Your task to perform on an android device: create a new album in the google photos Image 0: 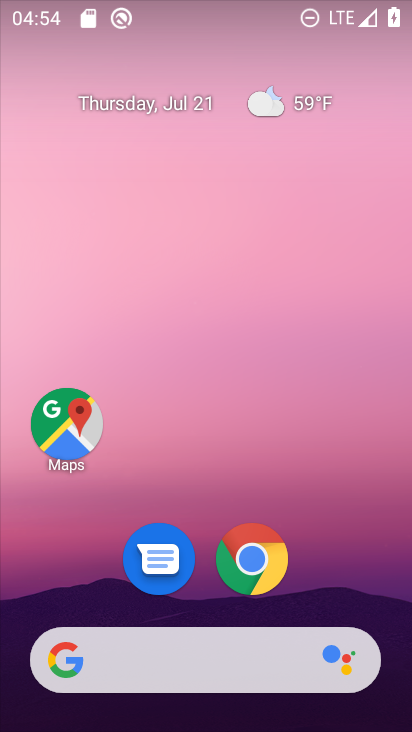
Step 0: drag from (55, 559) to (214, 4)
Your task to perform on an android device: create a new album in the google photos Image 1: 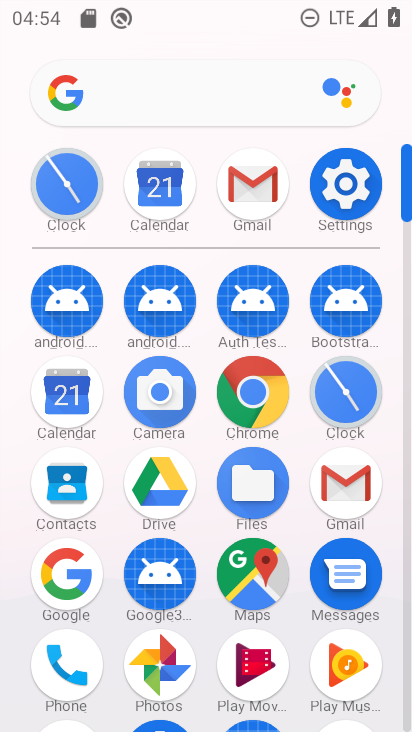
Step 1: click (160, 663)
Your task to perform on an android device: create a new album in the google photos Image 2: 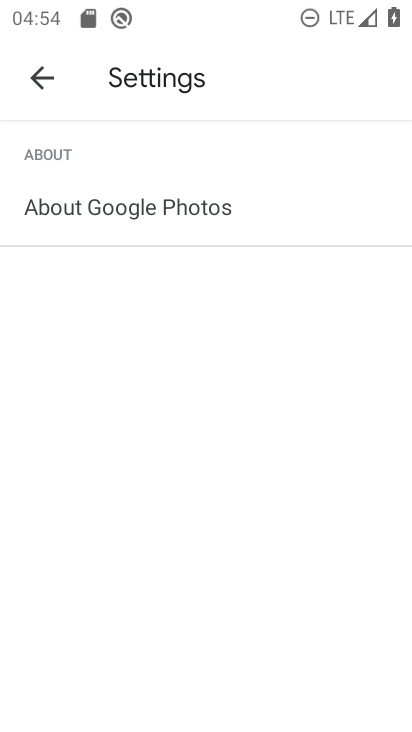
Step 2: click (33, 71)
Your task to perform on an android device: create a new album in the google photos Image 3: 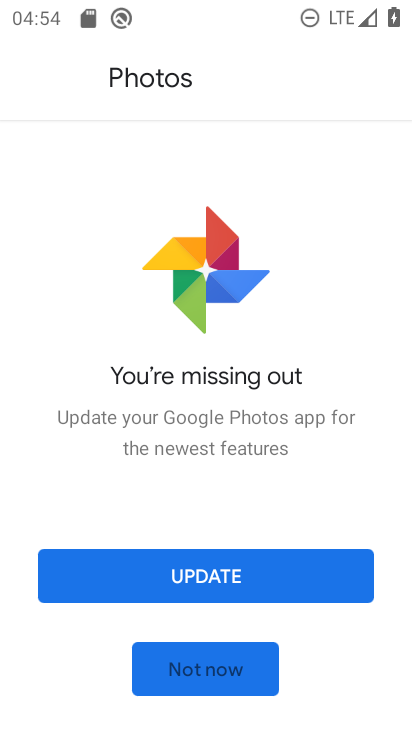
Step 3: click (208, 673)
Your task to perform on an android device: create a new album in the google photos Image 4: 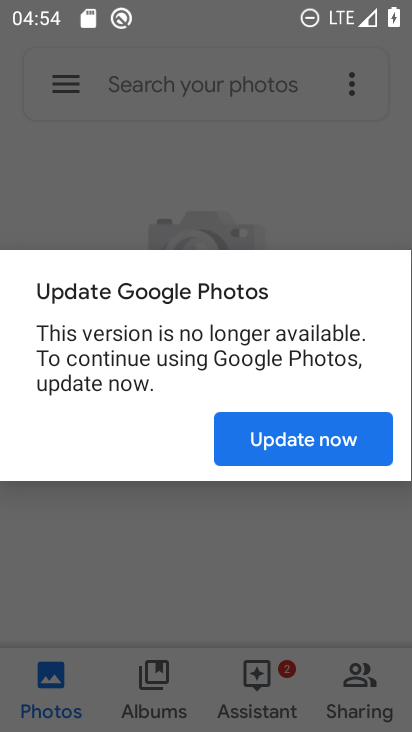
Step 4: click (260, 424)
Your task to perform on an android device: create a new album in the google photos Image 5: 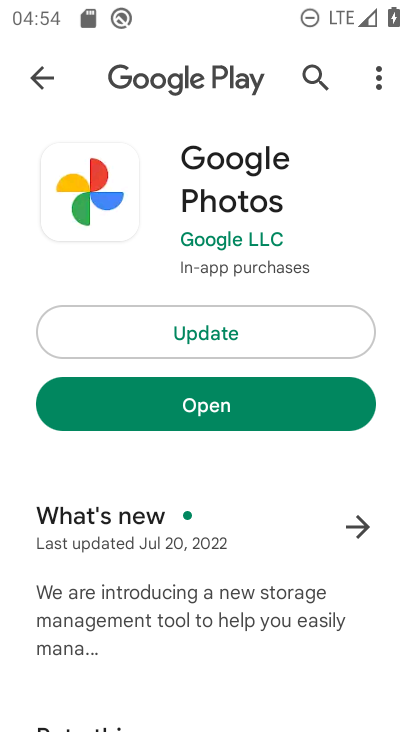
Step 5: click (211, 393)
Your task to perform on an android device: create a new album in the google photos Image 6: 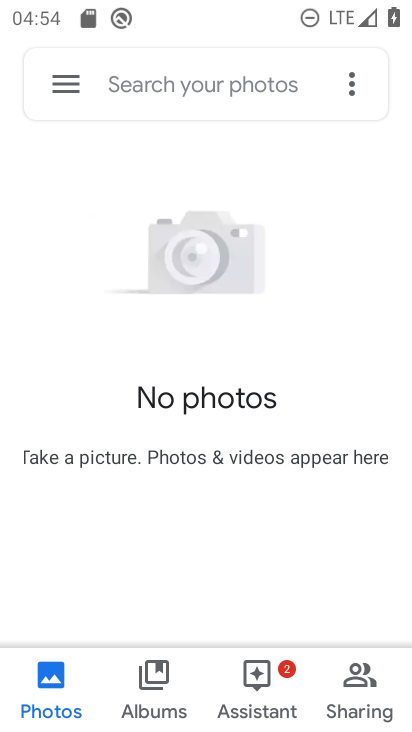
Step 6: click (153, 674)
Your task to perform on an android device: create a new album in the google photos Image 7: 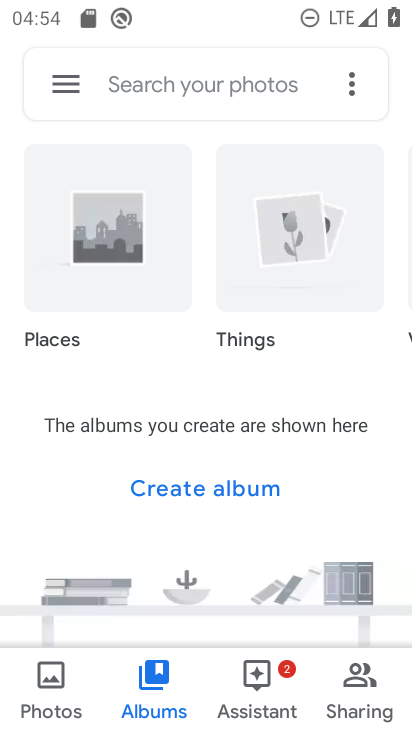
Step 7: click (179, 476)
Your task to perform on an android device: create a new album in the google photos Image 8: 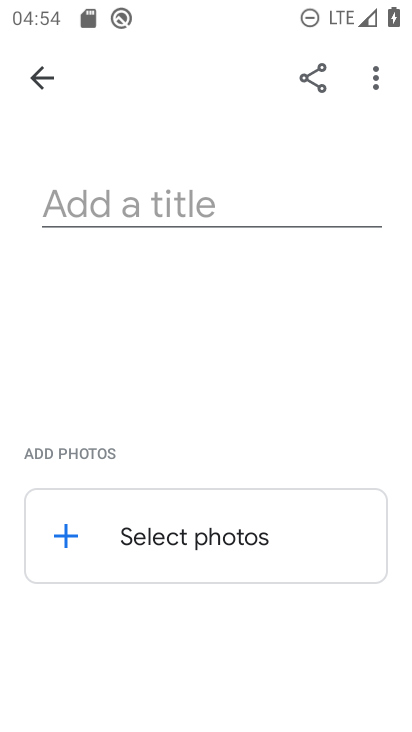
Step 8: click (131, 203)
Your task to perform on an android device: create a new album in the google photos Image 9: 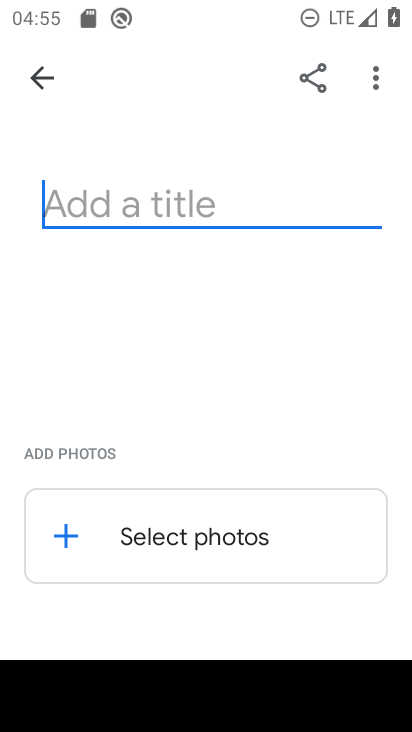
Step 9: type "fbdfb"
Your task to perform on an android device: create a new album in the google photos Image 10: 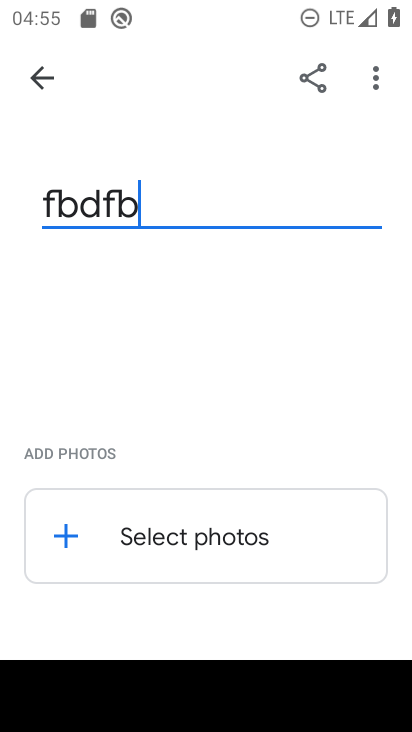
Step 10: click (176, 534)
Your task to perform on an android device: create a new album in the google photos Image 11: 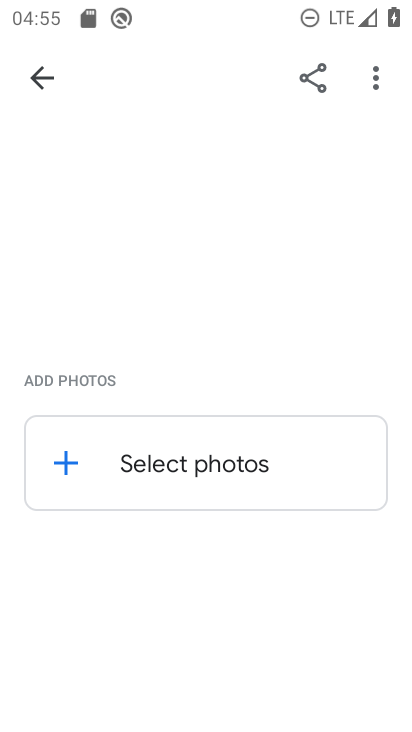
Step 11: click (167, 475)
Your task to perform on an android device: create a new album in the google photos Image 12: 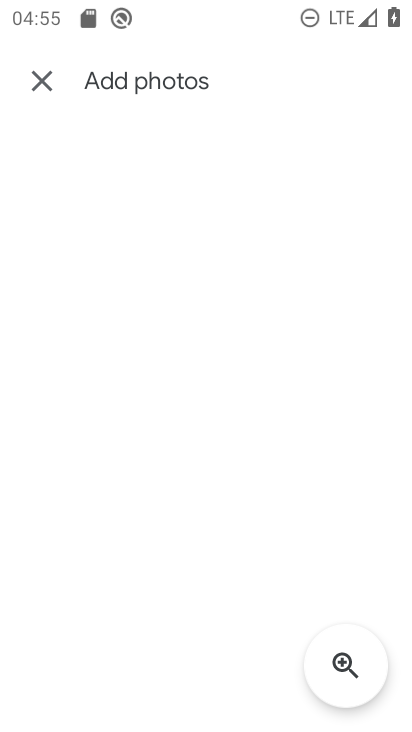
Step 12: task complete